Your task to perform on an android device: Open sound settings Image 0: 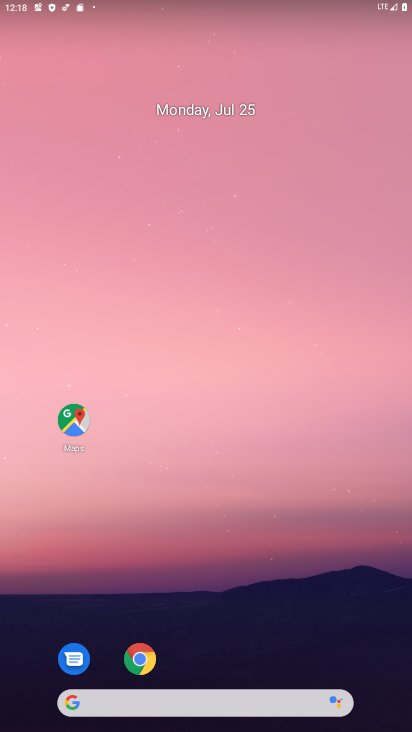
Step 0: drag from (0, 664) to (231, 62)
Your task to perform on an android device: Open sound settings Image 1: 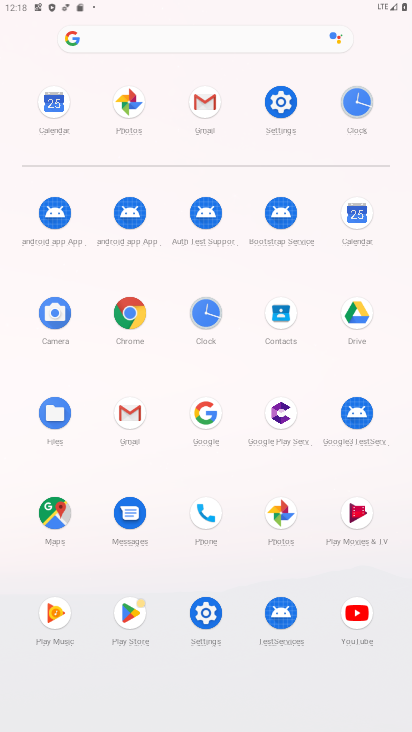
Step 1: click (223, 616)
Your task to perform on an android device: Open sound settings Image 2: 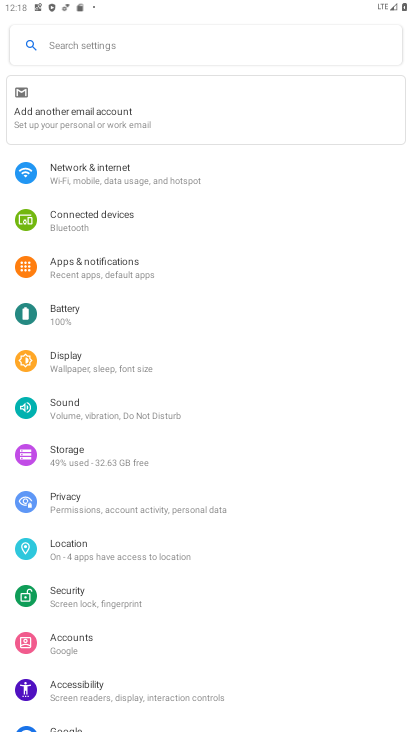
Step 2: click (82, 398)
Your task to perform on an android device: Open sound settings Image 3: 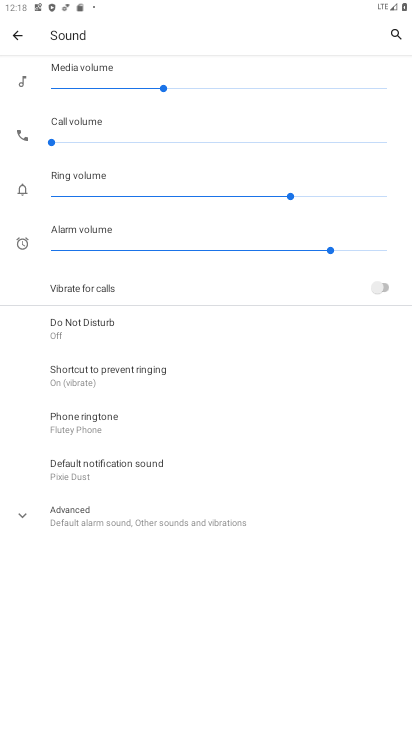
Step 3: task complete